Your task to perform on an android device: Open Chrome and go to settings Image 0: 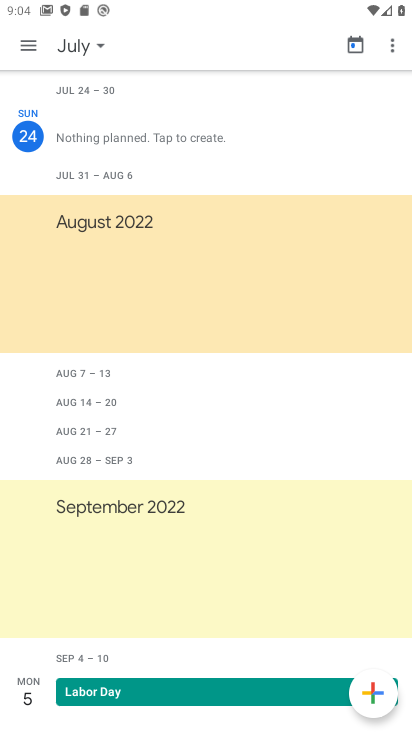
Step 0: press home button
Your task to perform on an android device: Open Chrome and go to settings Image 1: 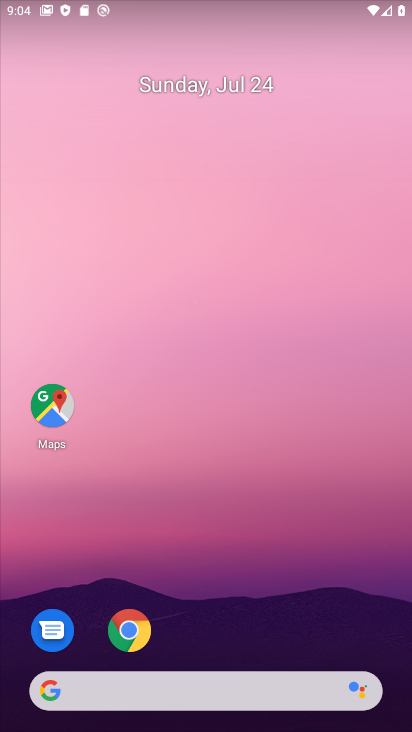
Step 1: click (140, 641)
Your task to perform on an android device: Open Chrome and go to settings Image 2: 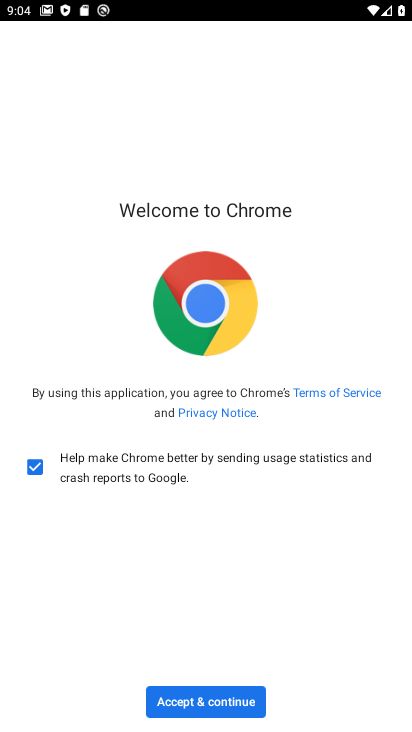
Step 2: click (241, 699)
Your task to perform on an android device: Open Chrome and go to settings Image 3: 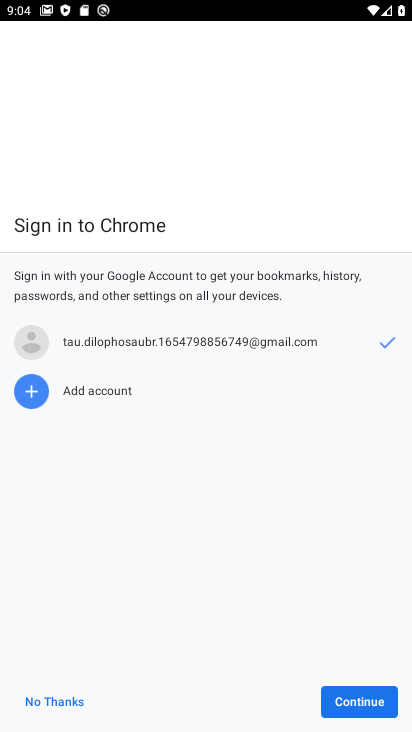
Step 3: click (395, 706)
Your task to perform on an android device: Open Chrome and go to settings Image 4: 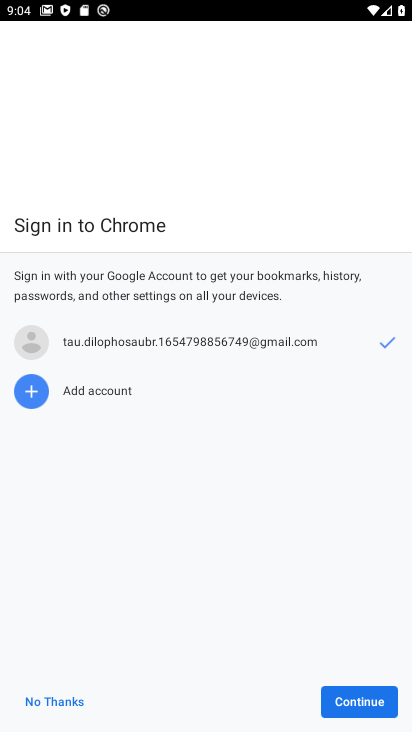
Step 4: click (394, 706)
Your task to perform on an android device: Open Chrome and go to settings Image 5: 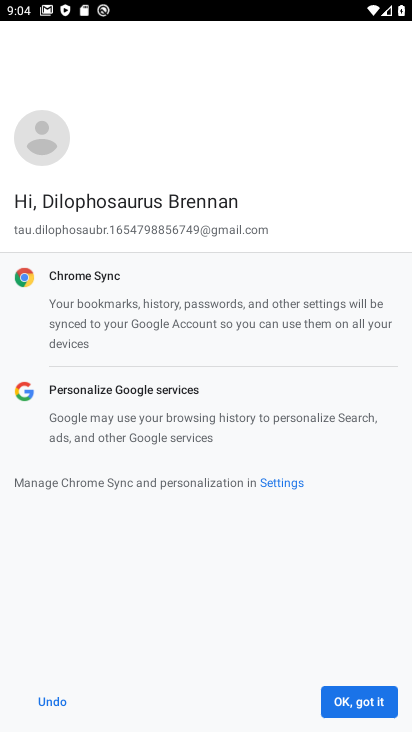
Step 5: click (350, 690)
Your task to perform on an android device: Open Chrome and go to settings Image 6: 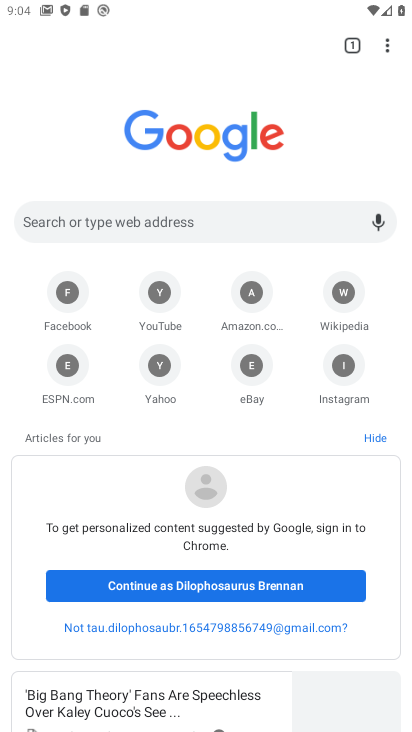
Step 6: click (382, 34)
Your task to perform on an android device: Open Chrome and go to settings Image 7: 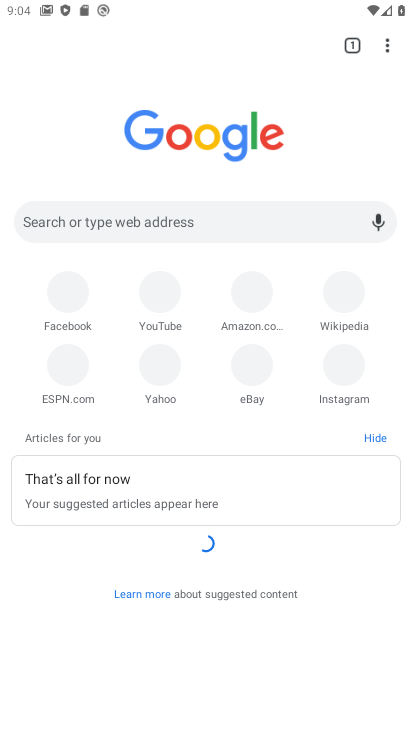
Step 7: click (395, 43)
Your task to perform on an android device: Open Chrome and go to settings Image 8: 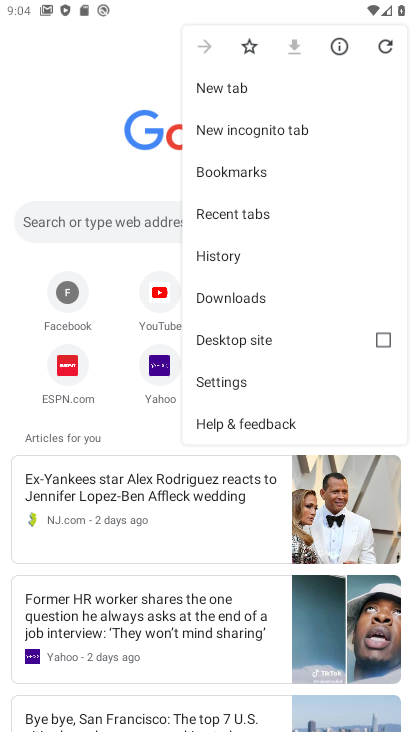
Step 8: click (221, 385)
Your task to perform on an android device: Open Chrome and go to settings Image 9: 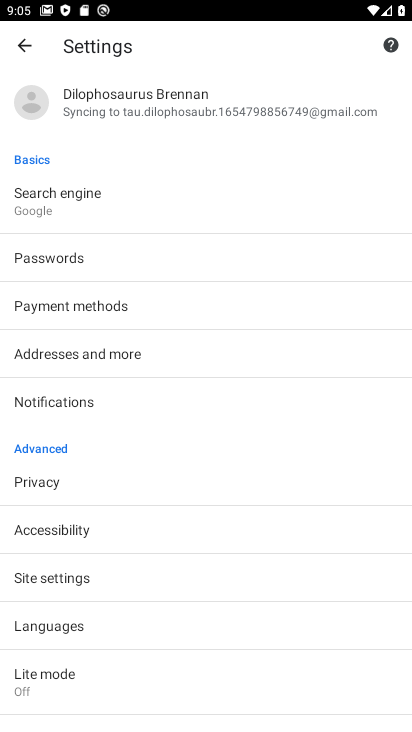
Step 9: task complete